Your task to perform on an android device: turn on the 12-hour format for clock Image 0: 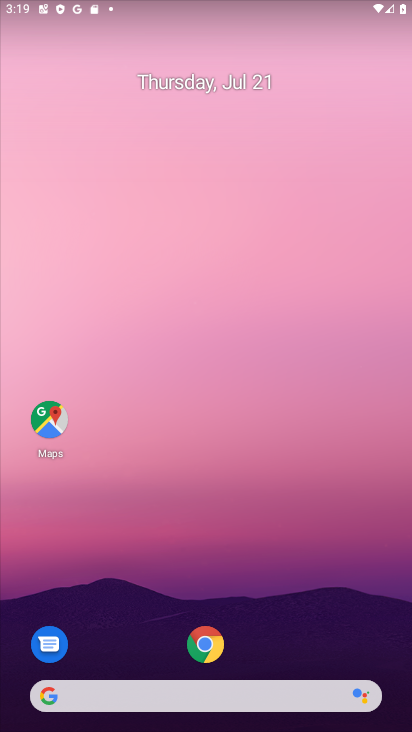
Step 0: press home button
Your task to perform on an android device: turn on the 12-hour format for clock Image 1: 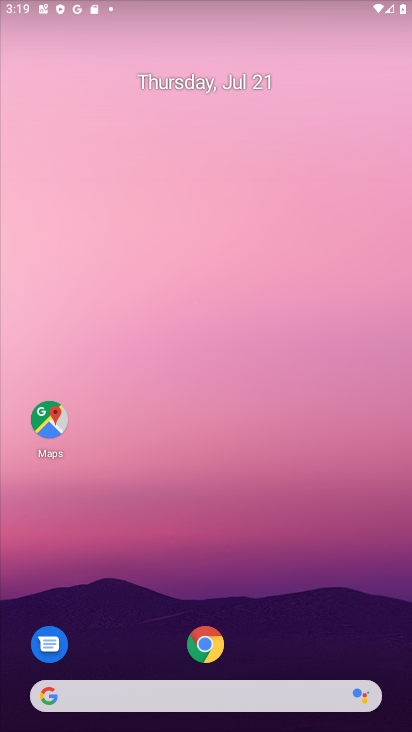
Step 1: drag from (277, 644) to (169, 153)
Your task to perform on an android device: turn on the 12-hour format for clock Image 2: 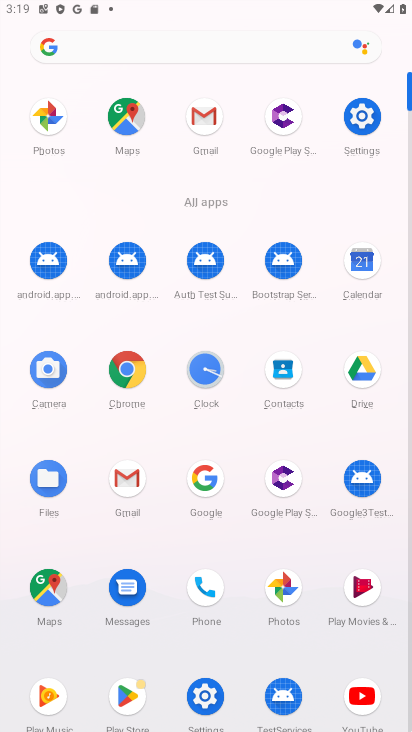
Step 2: click (209, 369)
Your task to perform on an android device: turn on the 12-hour format for clock Image 3: 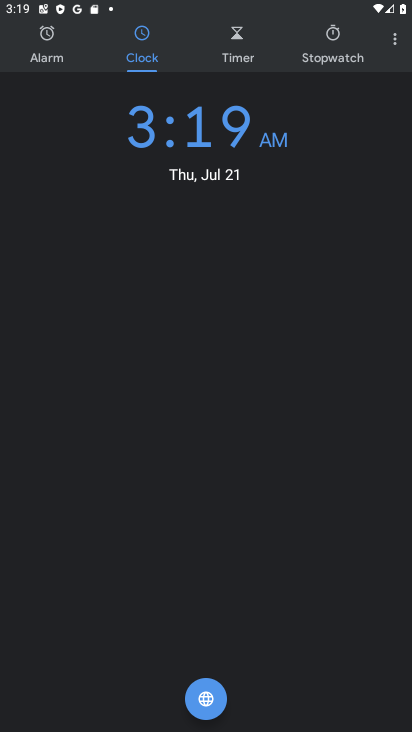
Step 3: click (395, 38)
Your task to perform on an android device: turn on the 12-hour format for clock Image 4: 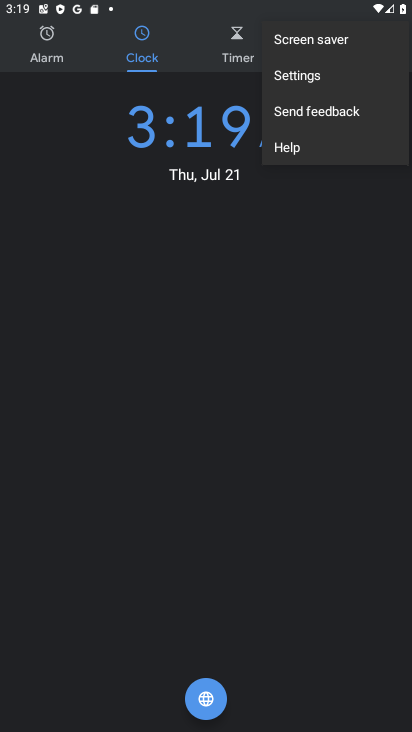
Step 4: click (300, 80)
Your task to perform on an android device: turn on the 12-hour format for clock Image 5: 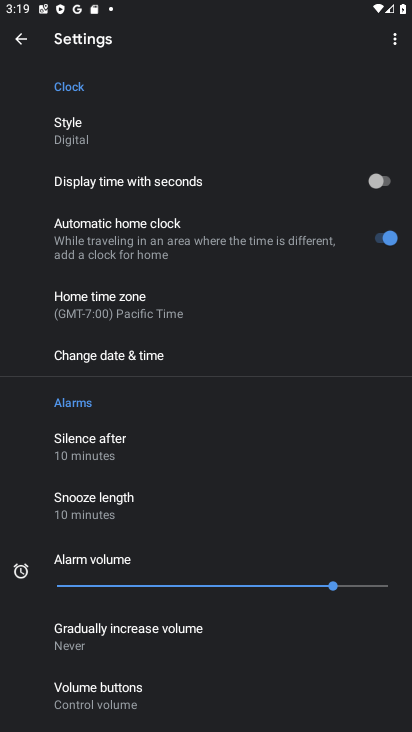
Step 5: click (98, 353)
Your task to perform on an android device: turn on the 12-hour format for clock Image 6: 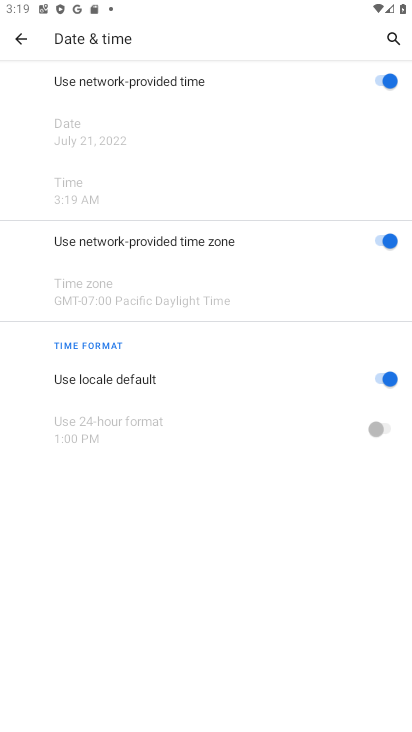
Step 6: task complete